Your task to perform on an android device: visit the assistant section in the google photos Image 0: 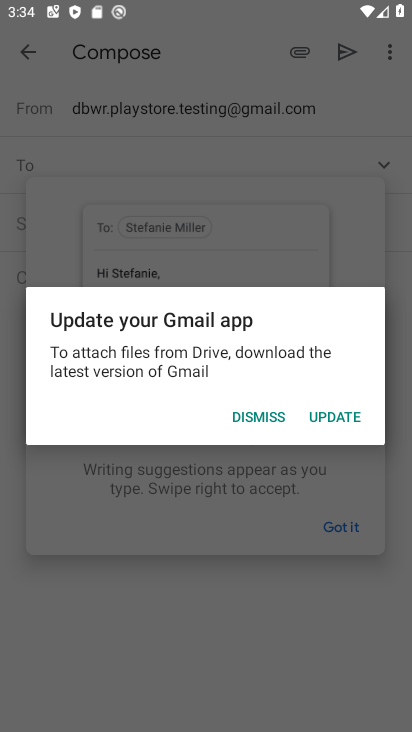
Step 0: press home button
Your task to perform on an android device: visit the assistant section in the google photos Image 1: 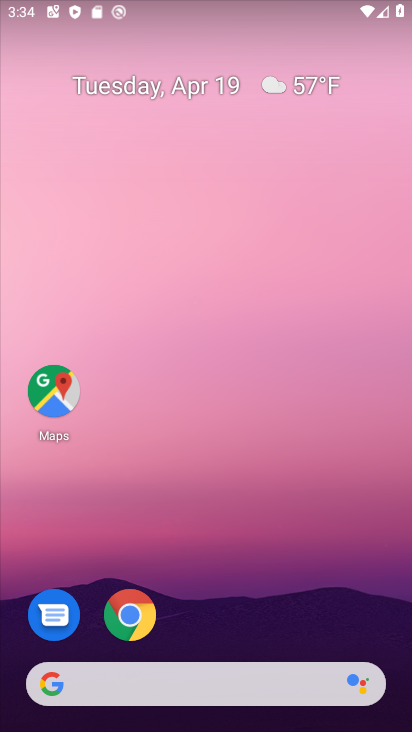
Step 1: drag from (209, 637) to (209, 272)
Your task to perform on an android device: visit the assistant section in the google photos Image 2: 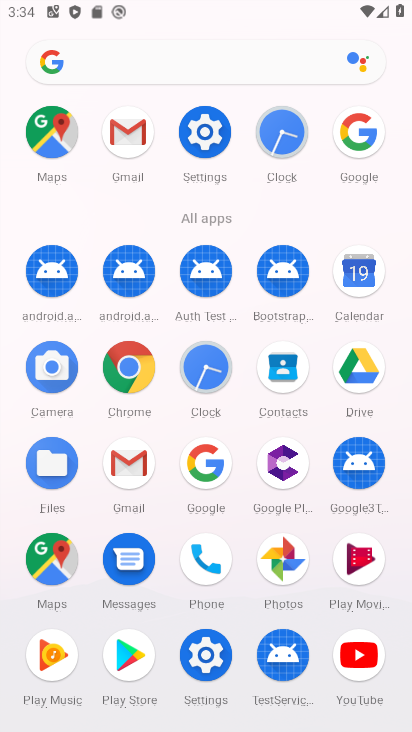
Step 2: click (283, 578)
Your task to perform on an android device: visit the assistant section in the google photos Image 3: 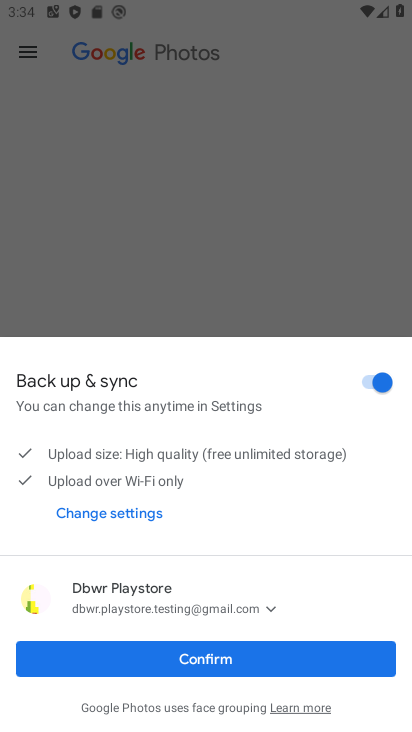
Step 3: click (304, 664)
Your task to perform on an android device: visit the assistant section in the google photos Image 4: 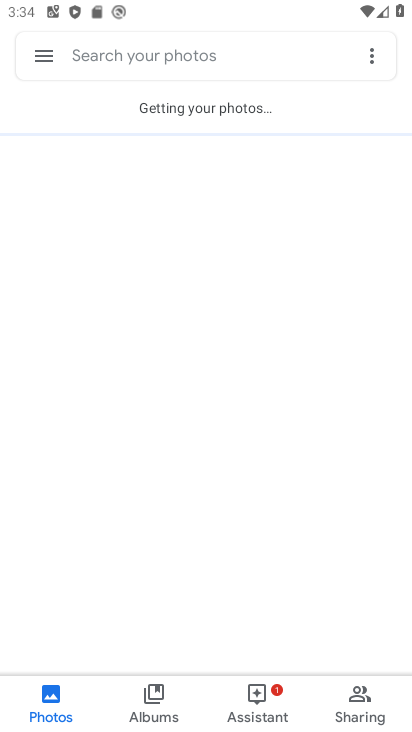
Step 4: click (262, 700)
Your task to perform on an android device: visit the assistant section in the google photos Image 5: 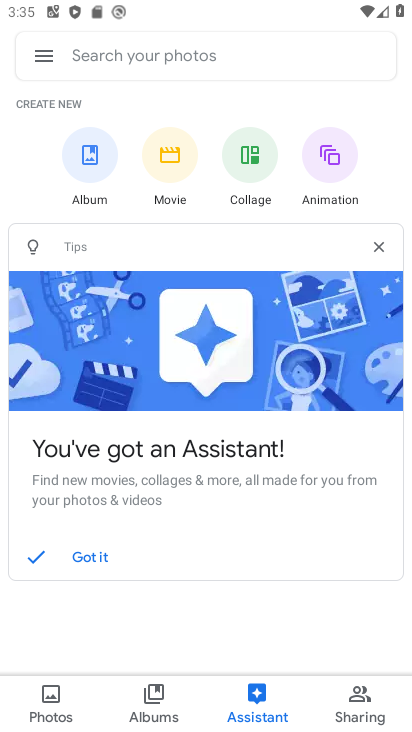
Step 5: task complete